Your task to perform on an android device: Search for top rated sushi restaurants on Maps Image 0: 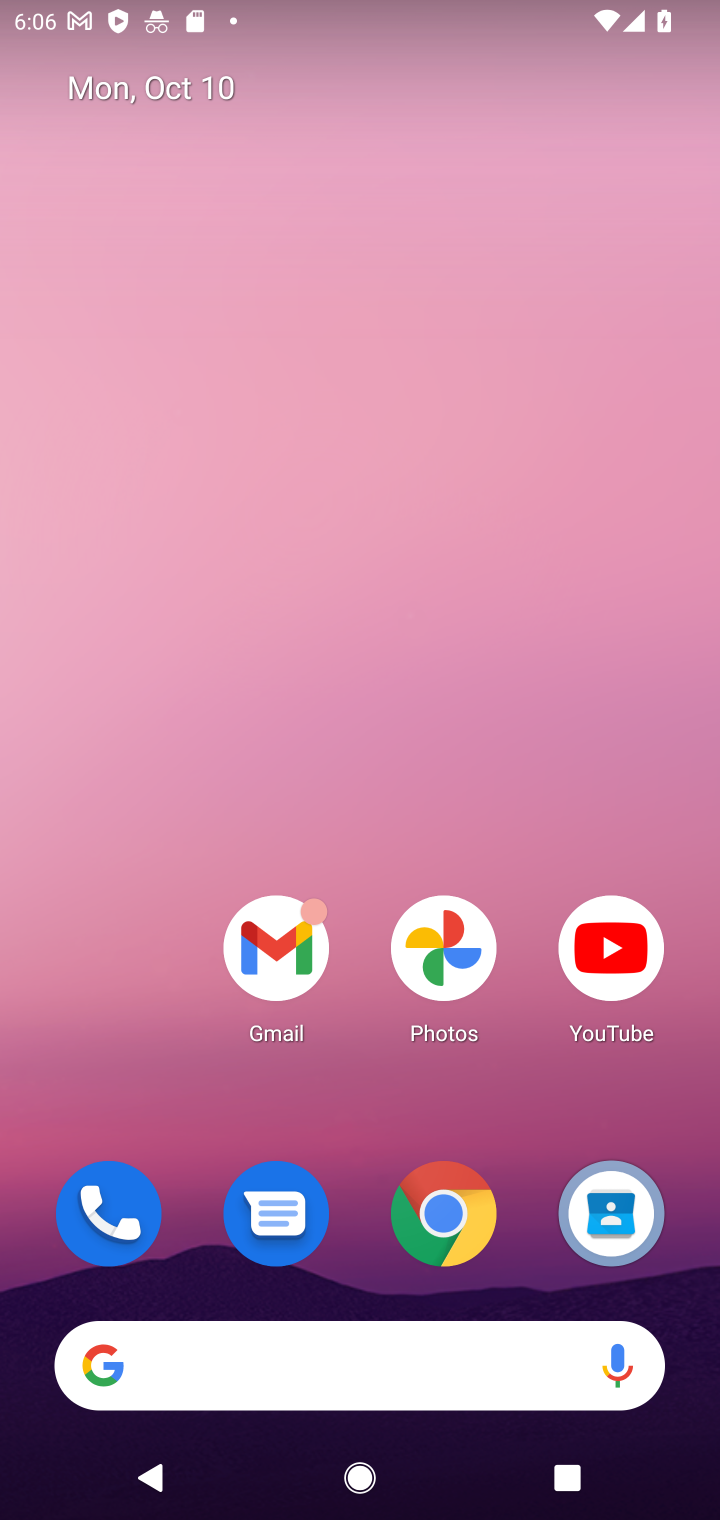
Step 0: drag from (310, 1151) to (369, 26)
Your task to perform on an android device: Search for top rated sushi restaurants on Maps Image 1: 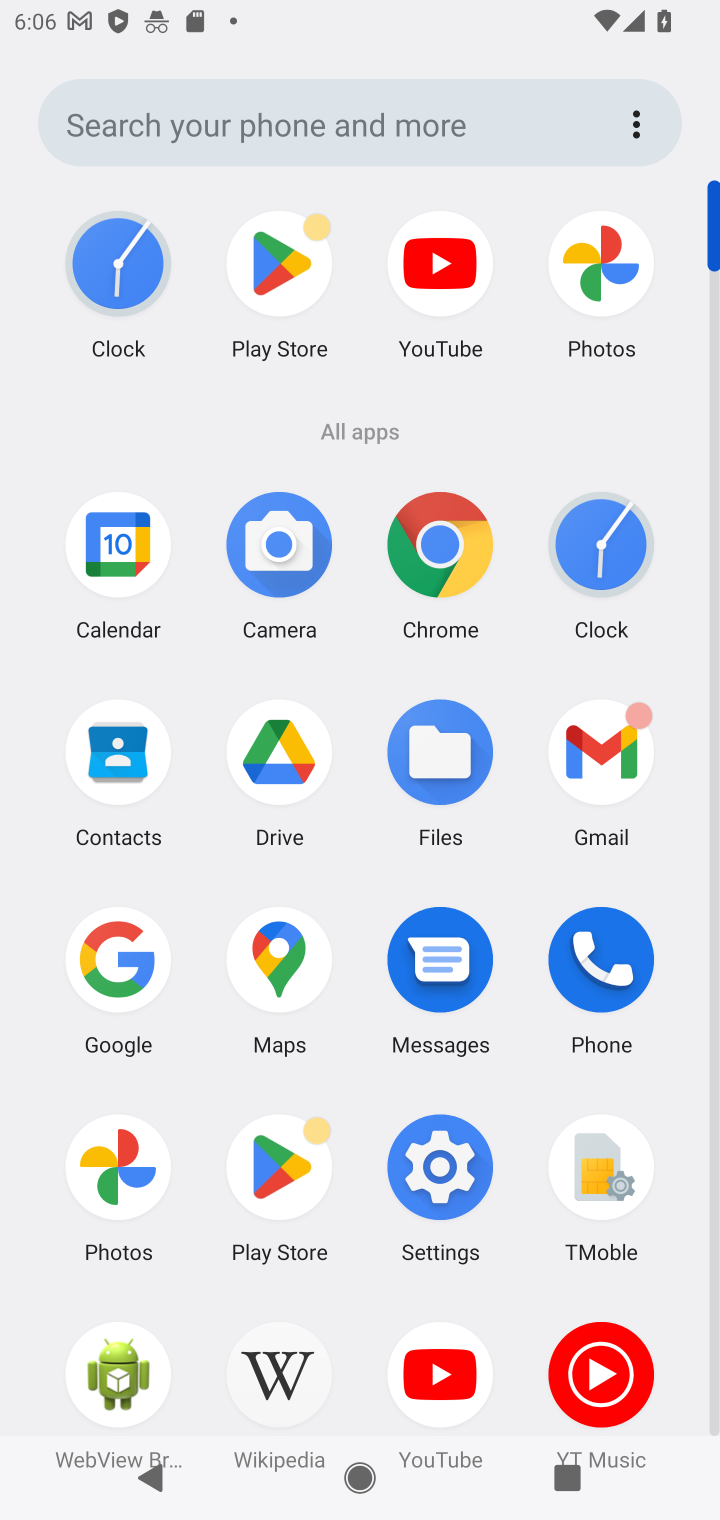
Step 1: click (277, 969)
Your task to perform on an android device: Search for top rated sushi restaurants on Maps Image 2: 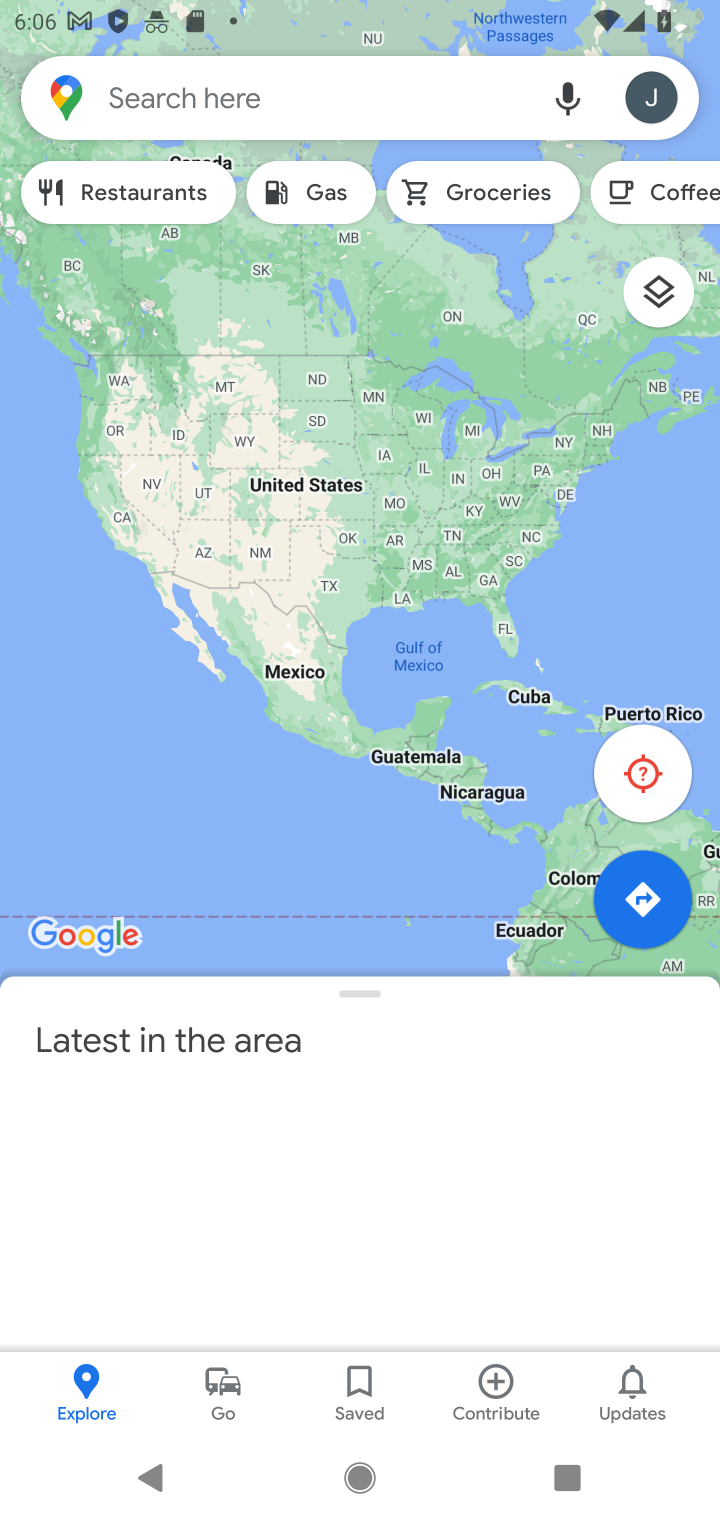
Step 2: click (177, 87)
Your task to perform on an android device: Search for top rated sushi restaurants on Maps Image 3: 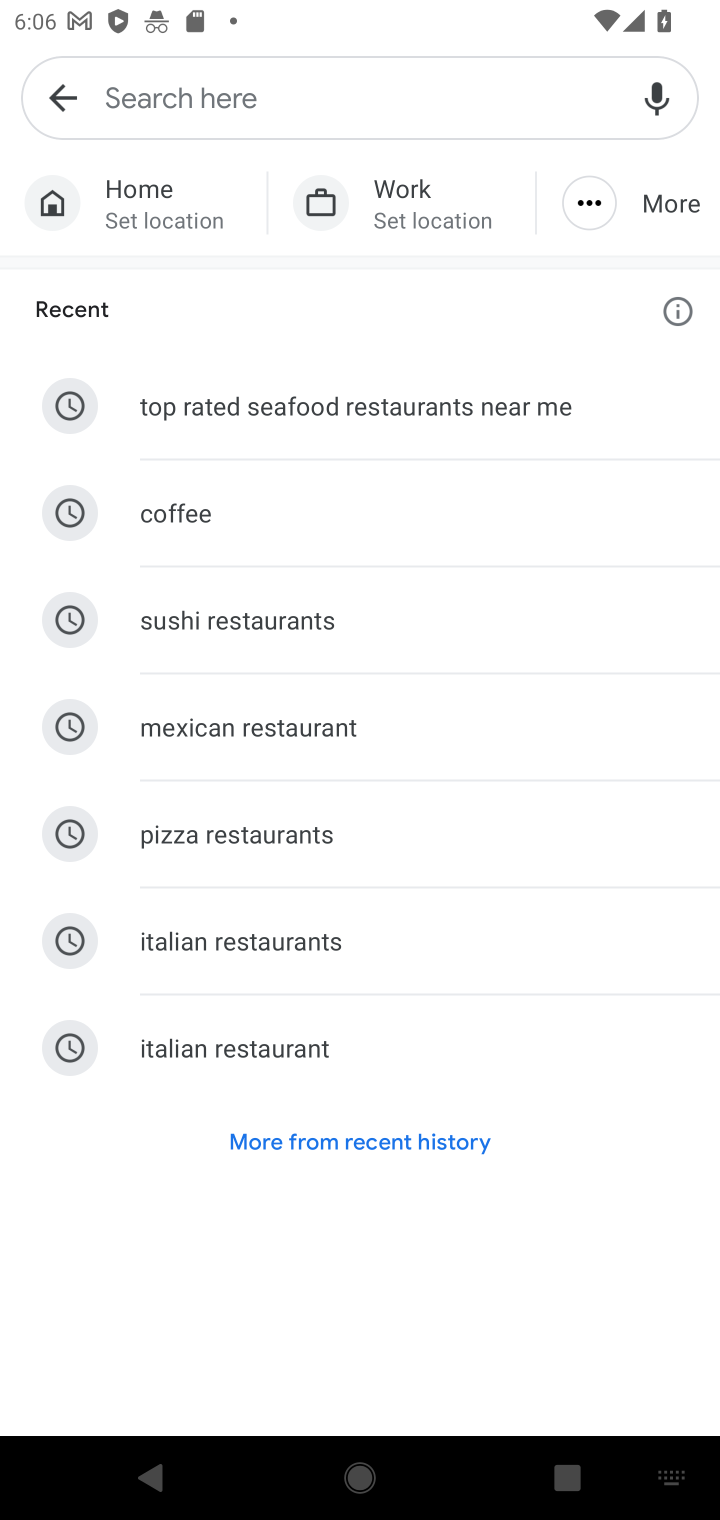
Step 3: click (182, 115)
Your task to perform on an android device: Search for top rated sushi restaurants on Maps Image 4: 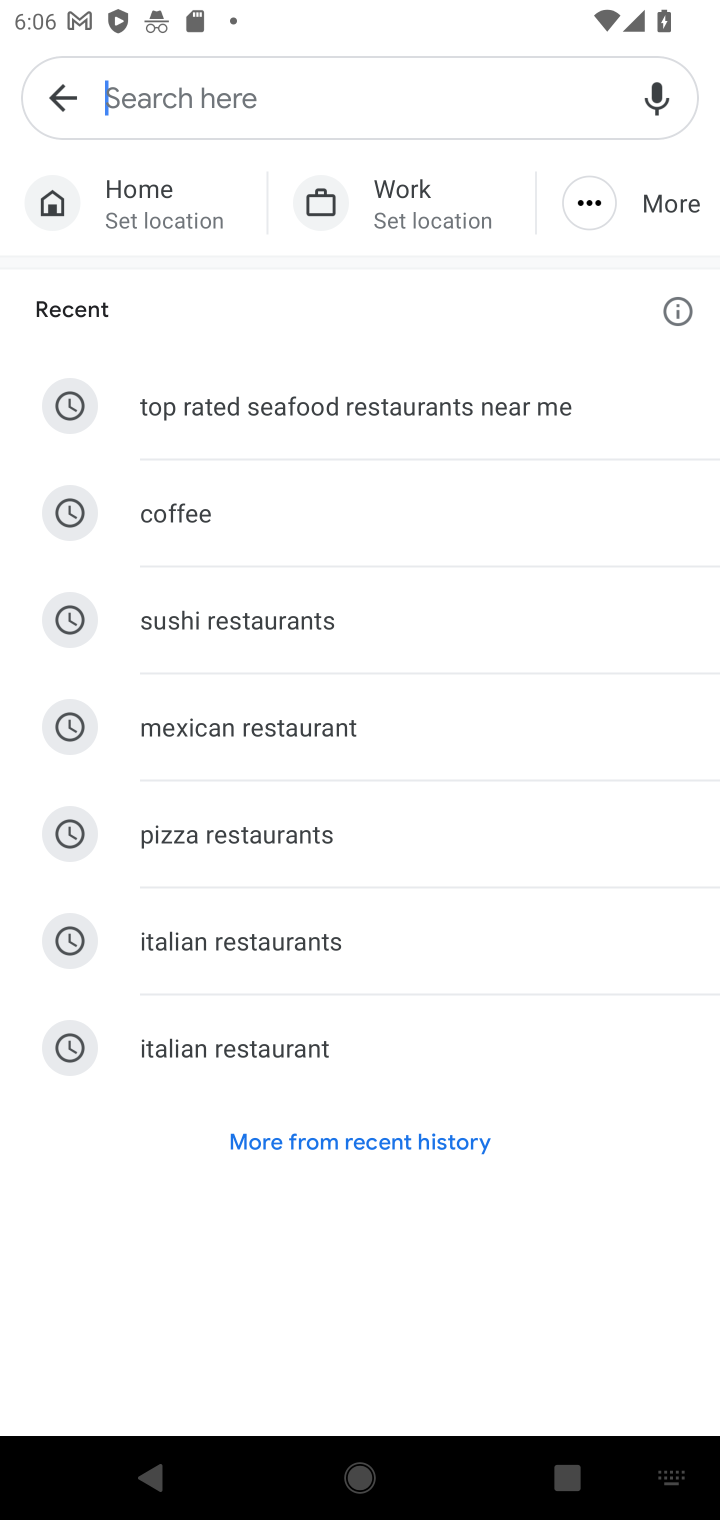
Step 4: type "top rated sushi restaurants"
Your task to perform on an android device: Search for top rated sushi restaurants on Maps Image 5: 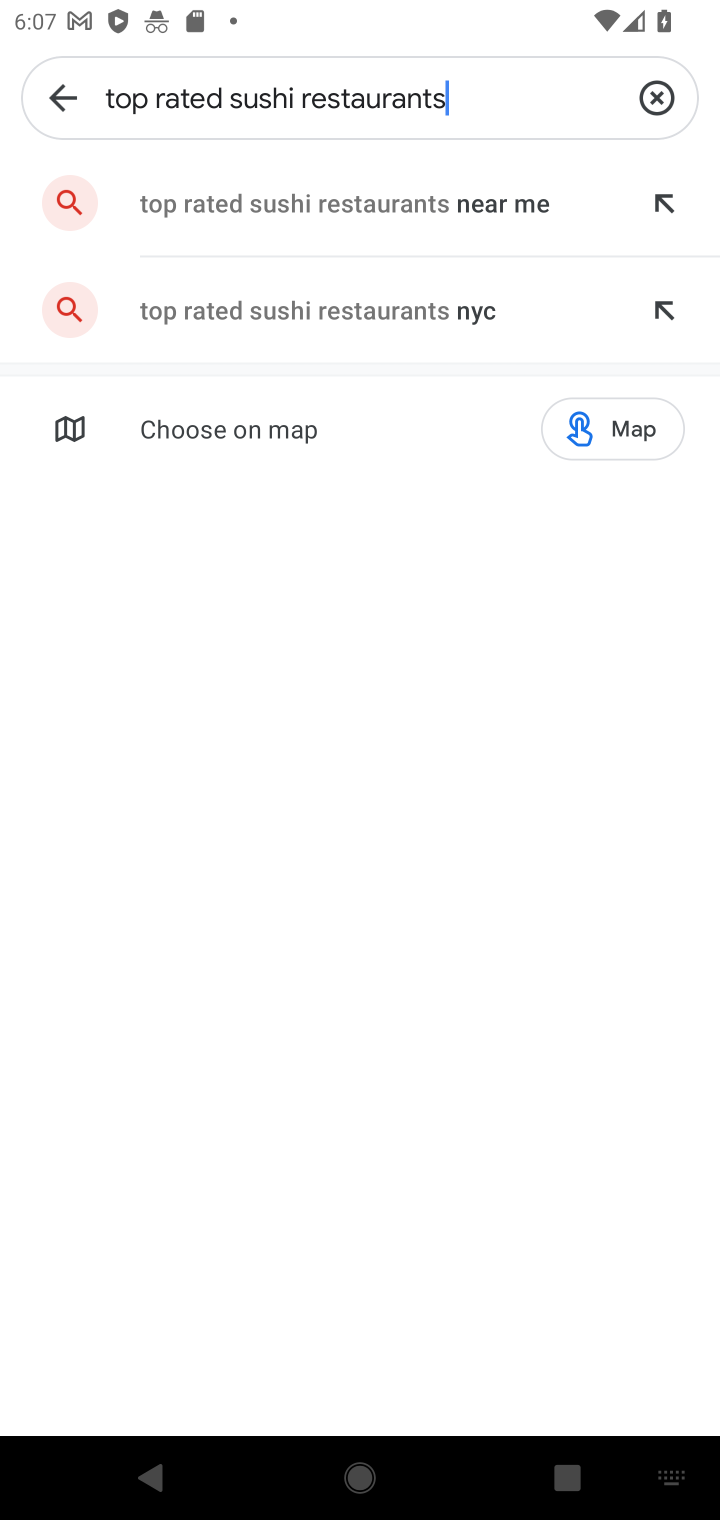
Step 5: click (483, 195)
Your task to perform on an android device: Search for top rated sushi restaurants on Maps Image 6: 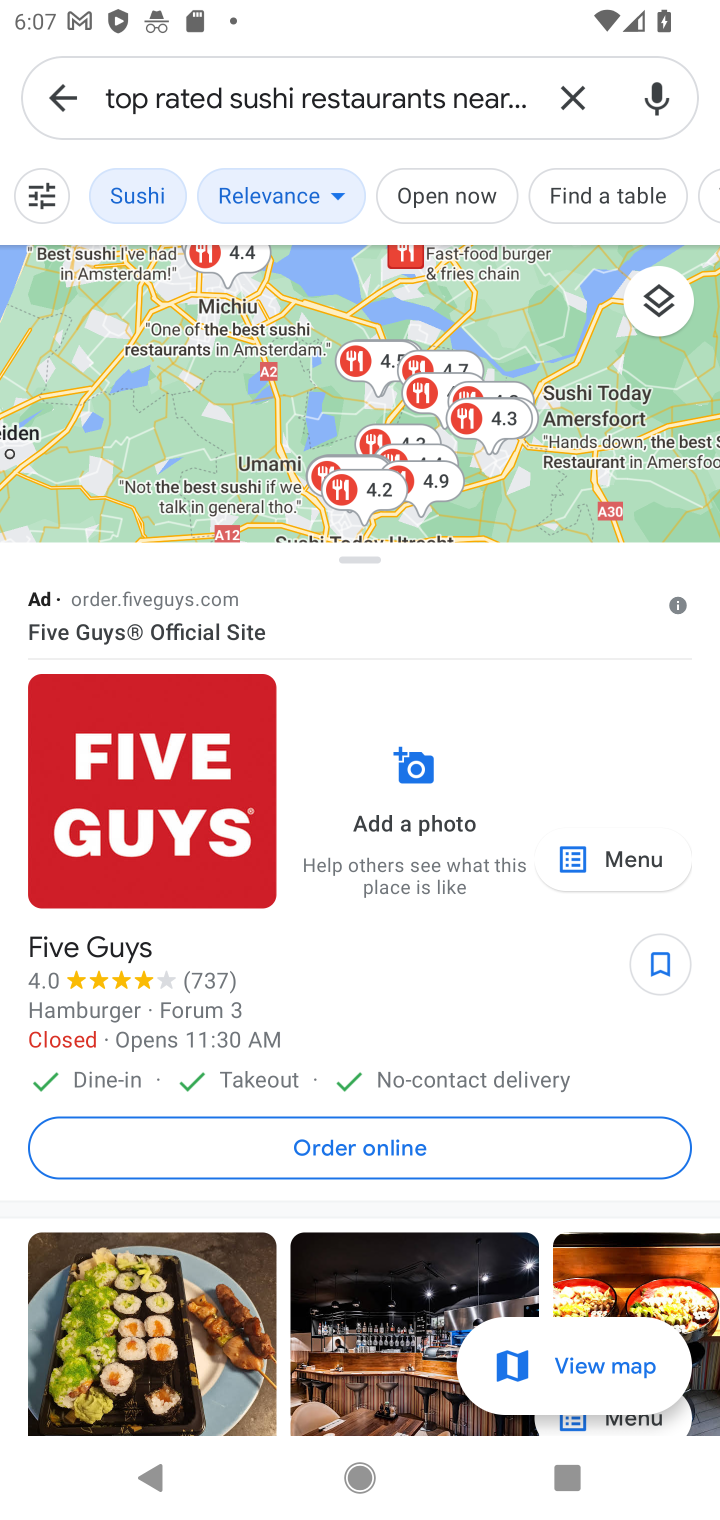
Step 6: task complete